Your task to perform on an android device: See recent photos Image 0: 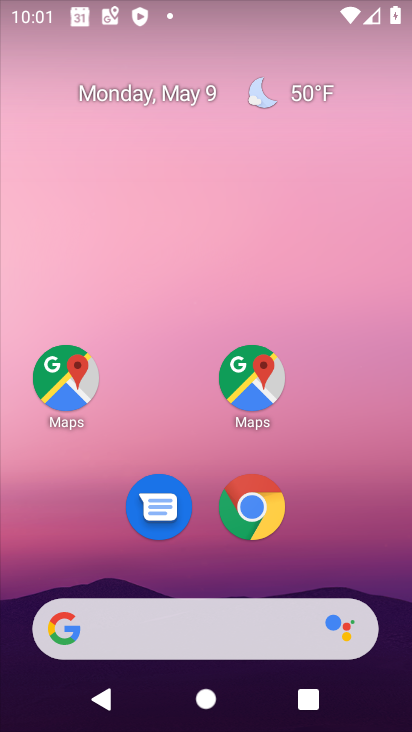
Step 0: drag from (327, 552) to (265, 0)
Your task to perform on an android device: See recent photos Image 1: 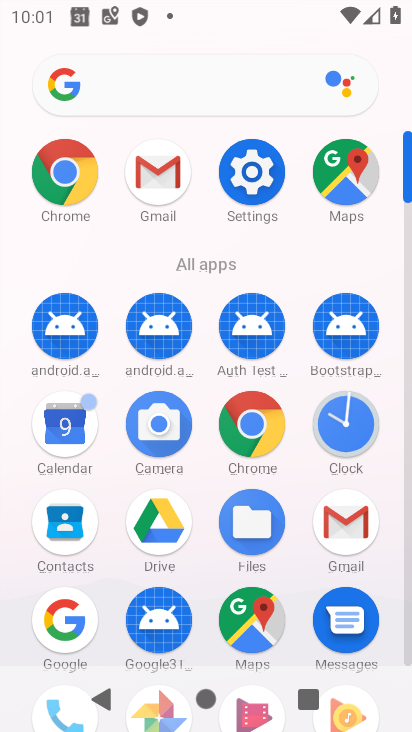
Step 1: drag from (205, 462) to (207, 292)
Your task to perform on an android device: See recent photos Image 2: 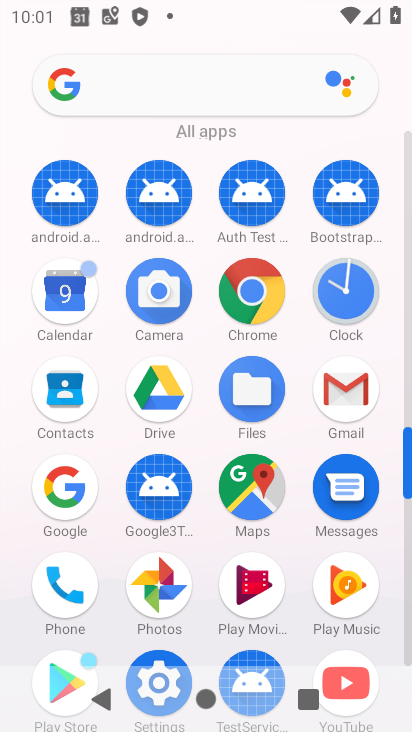
Step 2: click (171, 588)
Your task to perform on an android device: See recent photos Image 3: 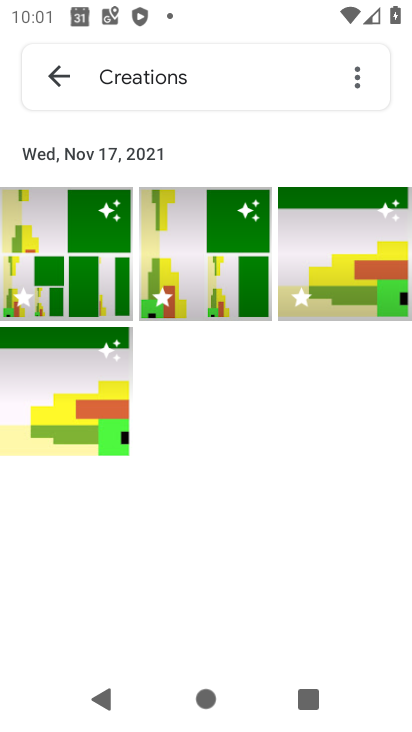
Step 3: click (42, 76)
Your task to perform on an android device: See recent photos Image 4: 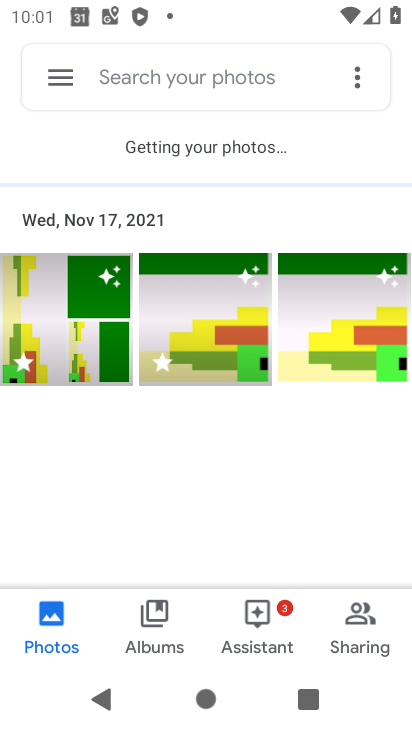
Step 4: click (69, 617)
Your task to perform on an android device: See recent photos Image 5: 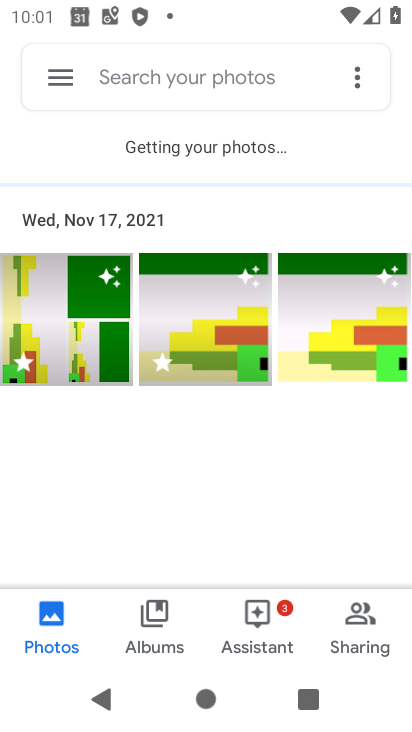
Step 5: task complete